Your task to perform on an android device: When is my next appointment? Image 0: 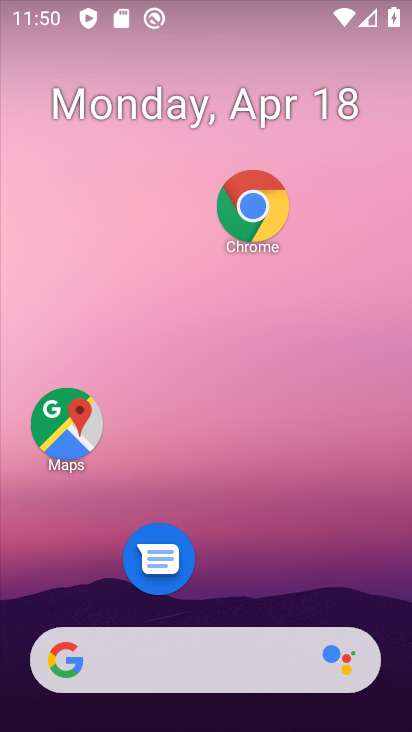
Step 0: drag from (336, 689) to (407, 270)
Your task to perform on an android device: When is my next appointment? Image 1: 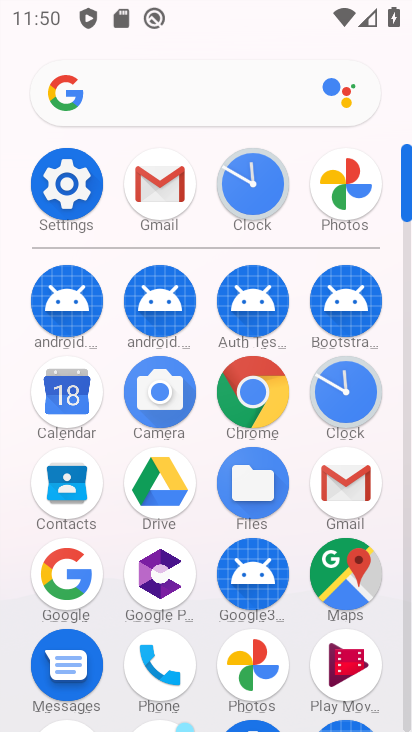
Step 1: click (237, 419)
Your task to perform on an android device: When is my next appointment? Image 2: 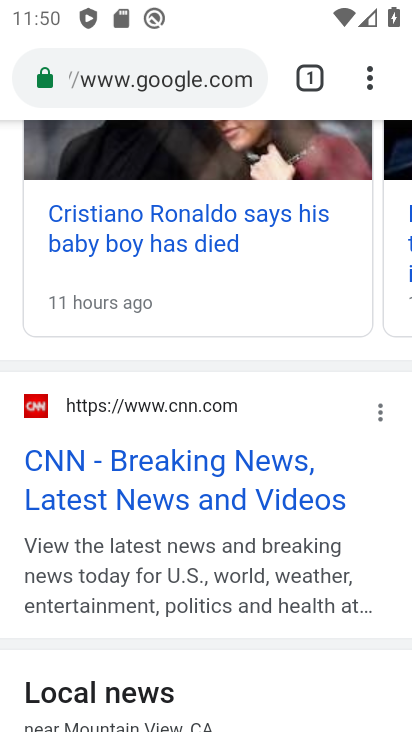
Step 2: click (199, 91)
Your task to perform on an android device: When is my next appointment? Image 3: 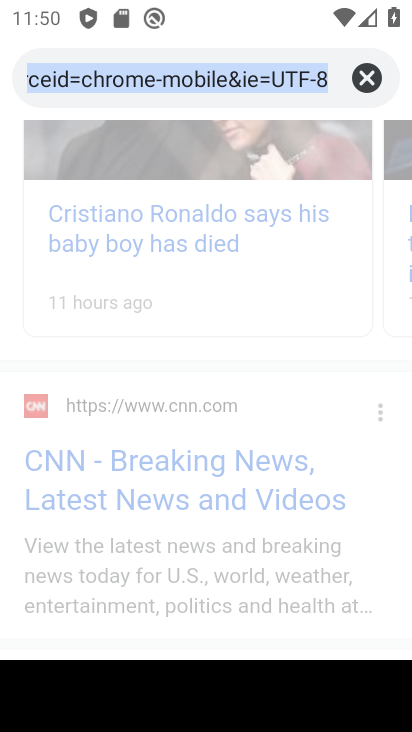
Step 3: type "ebay"
Your task to perform on an android device: When is my next appointment? Image 4: 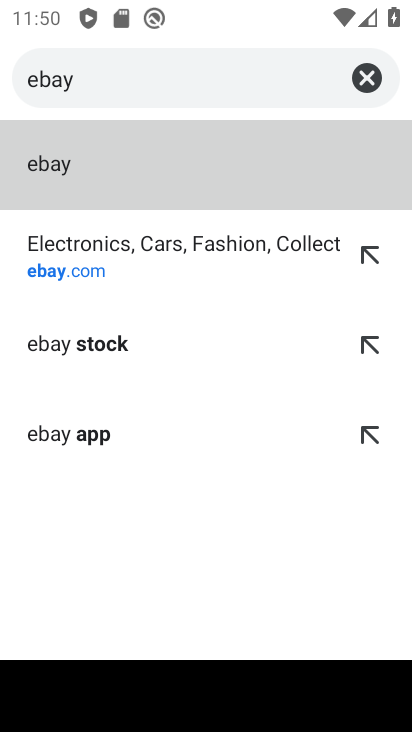
Step 4: click (207, 433)
Your task to perform on an android device: When is my next appointment? Image 5: 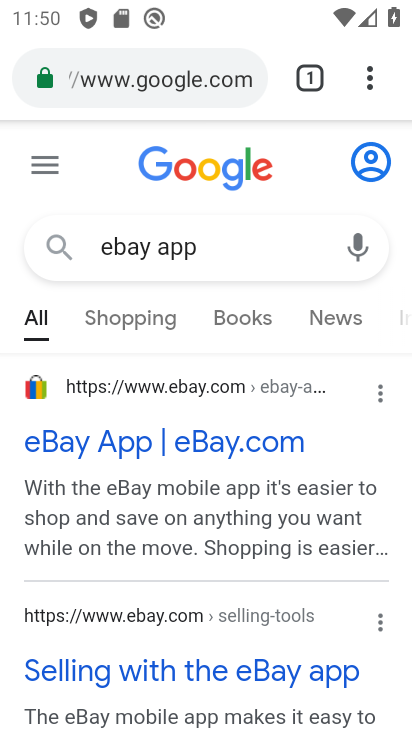
Step 5: task complete